Your task to perform on an android device: open chrome privacy settings Image 0: 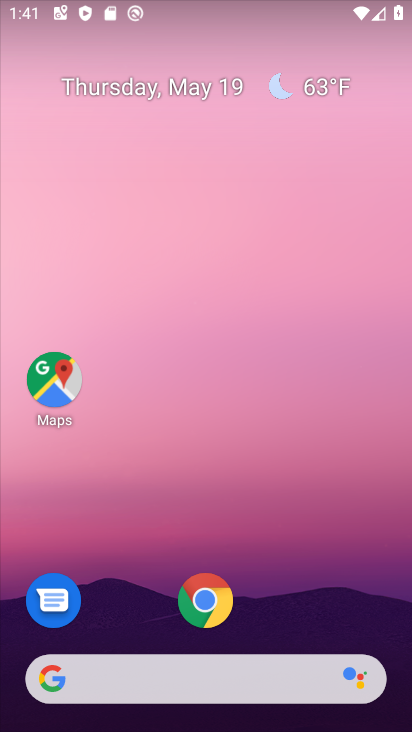
Step 0: click (317, 579)
Your task to perform on an android device: open chrome privacy settings Image 1: 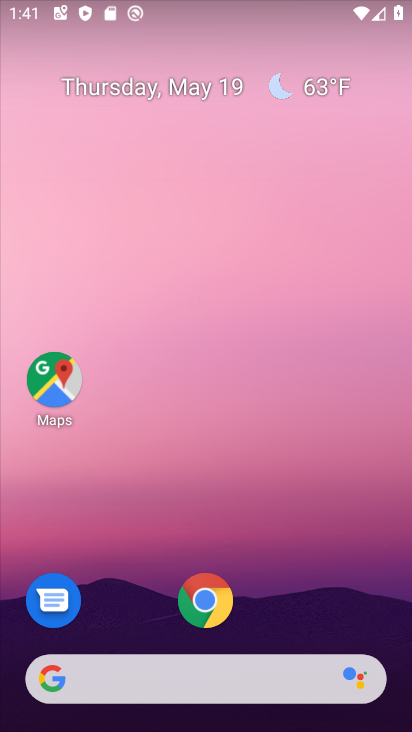
Step 1: click (228, 599)
Your task to perform on an android device: open chrome privacy settings Image 2: 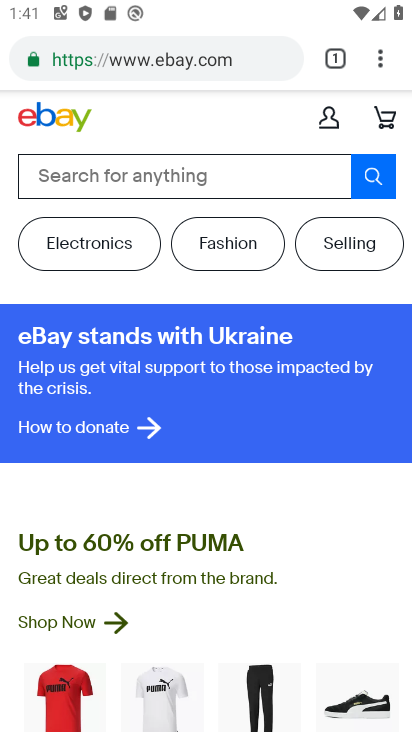
Step 2: click (380, 62)
Your task to perform on an android device: open chrome privacy settings Image 3: 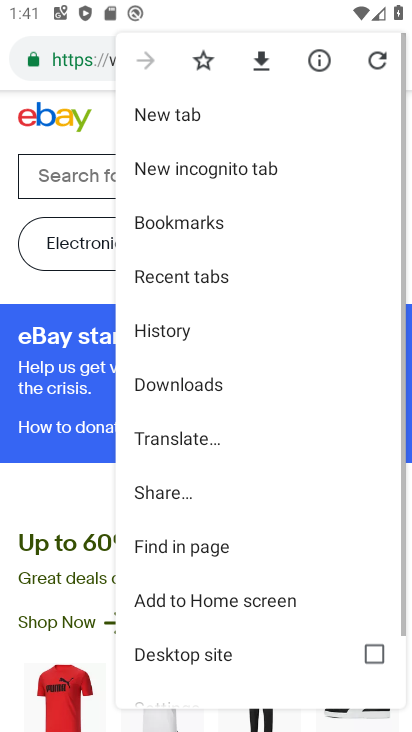
Step 3: drag from (257, 612) to (236, 178)
Your task to perform on an android device: open chrome privacy settings Image 4: 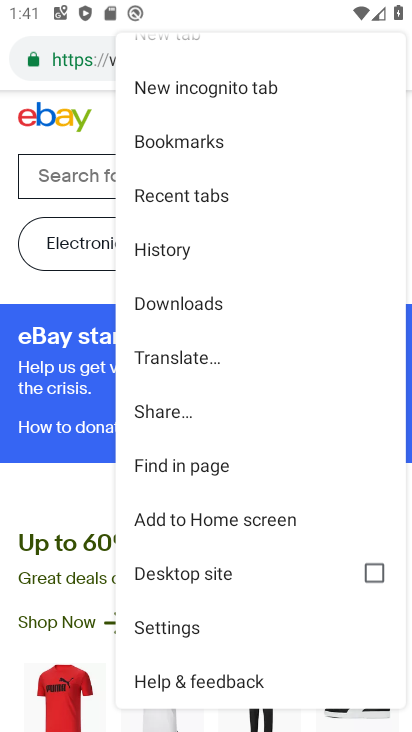
Step 4: click (188, 624)
Your task to perform on an android device: open chrome privacy settings Image 5: 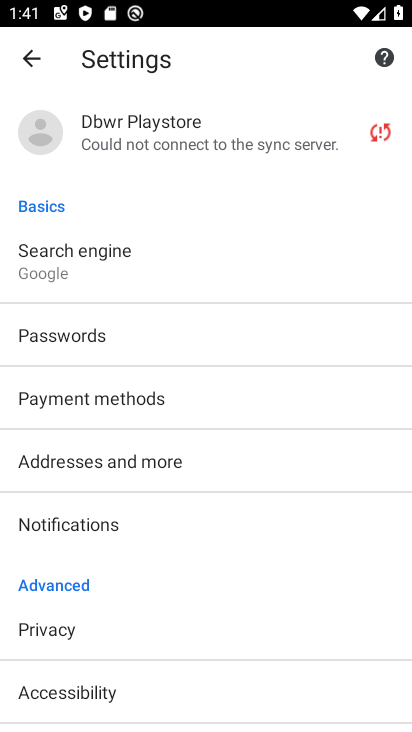
Step 5: click (111, 640)
Your task to perform on an android device: open chrome privacy settings Image 6: 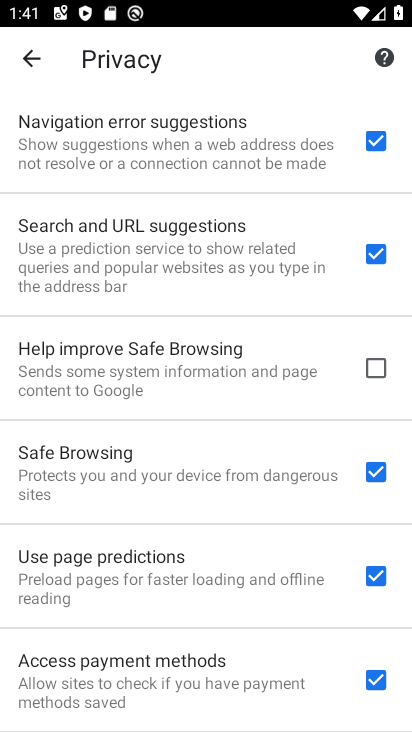
Step 6: task complete